Your task to perform on an android device: change the clock style Image 0: 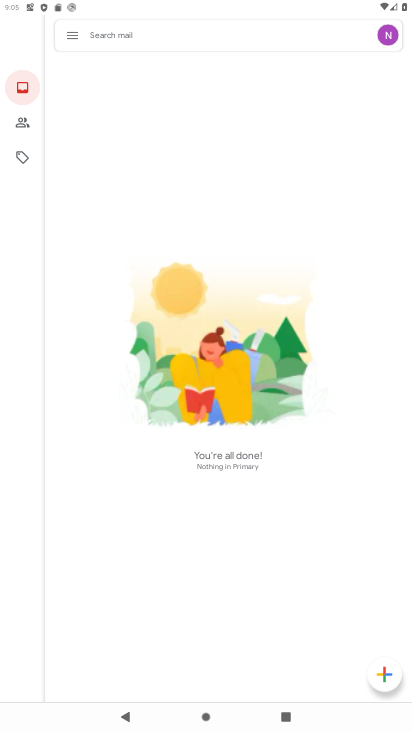
Step 0: press home button
Your task to perform on an android device: change the clock style Image 1: 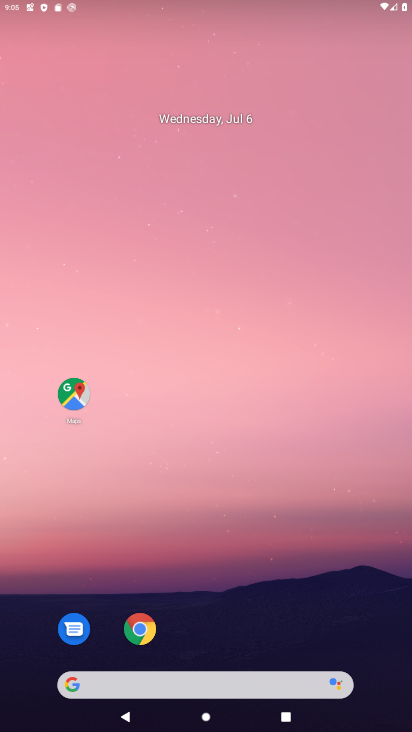
Step 1: drag from (224, 663) to (253, 92)
Your task to perform on an android device: change the clock style Image 2: 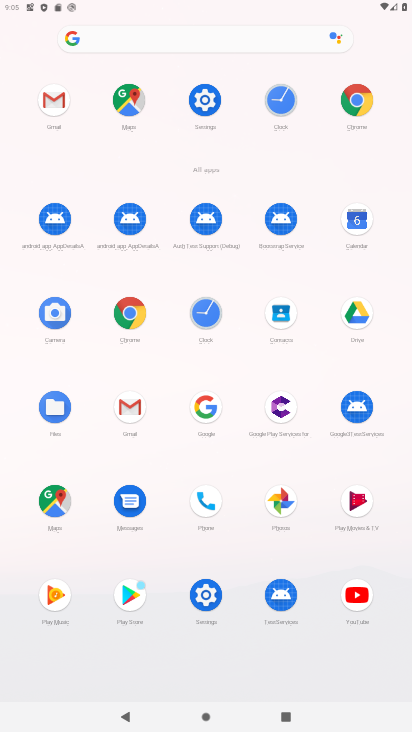
Step 2: click (214, 320)
Your task to perform on an android device: change the clock style Image 3: 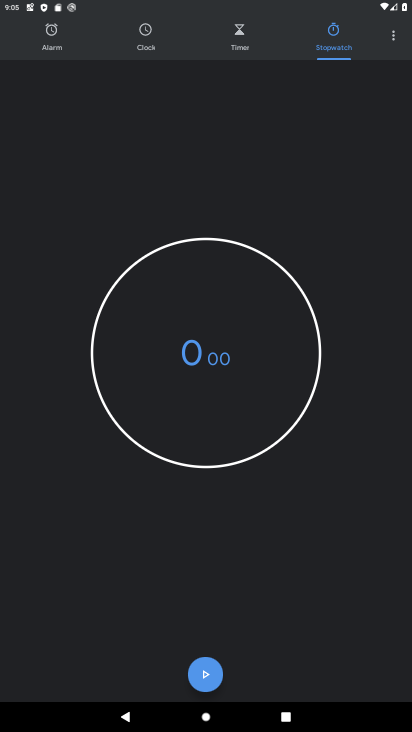
Step 3: click (389, 43)
Your task to perform on an android device: change the clock style Image 4: 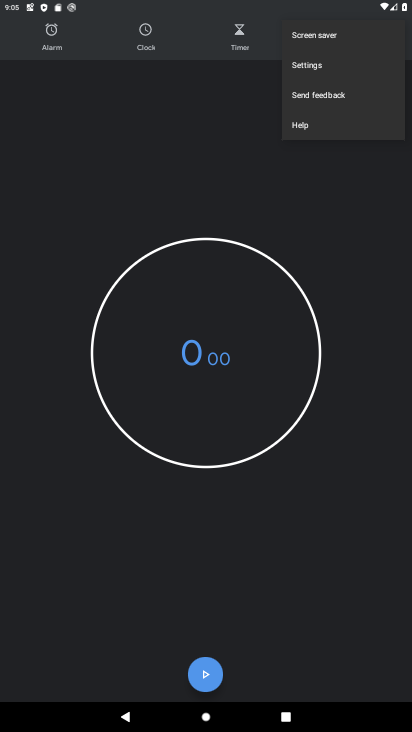
Step 4: click (328, 72)
Your task to perform on an android device: change the clock style Image 5: 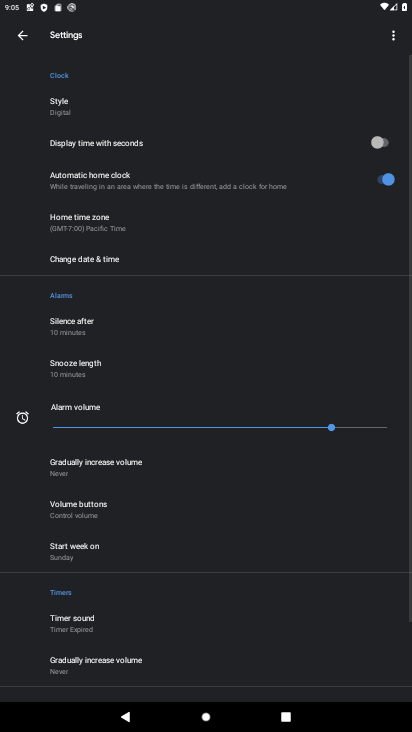
Step 5: drag from (213, 631) to (230, 416)
Your task to perform on an android device: change the clock style Image 6: 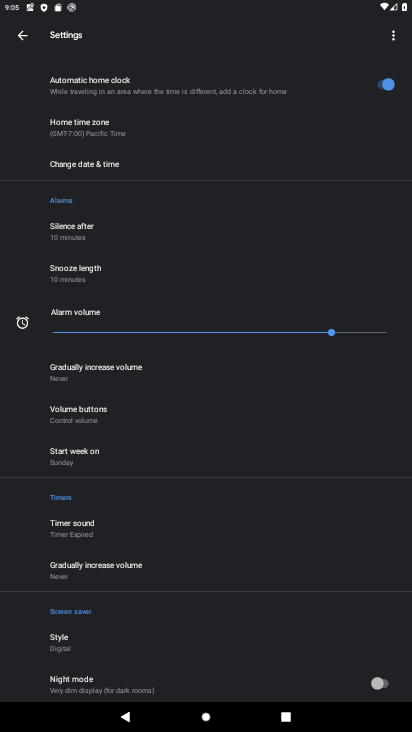
Step 6: click (104, 644)
Your task to perform on an android device: change the clock style Image 7: 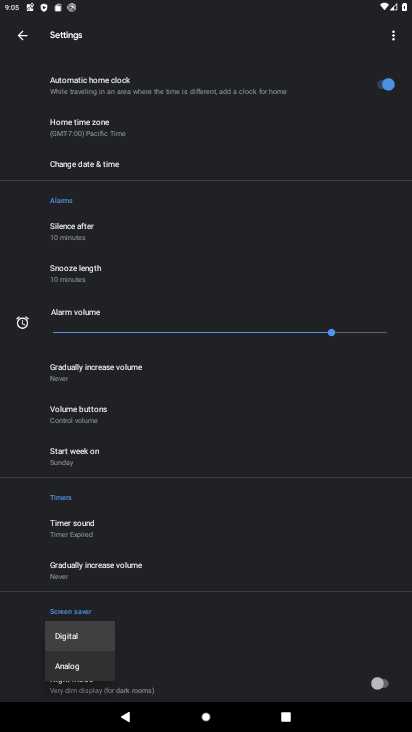
Step 7: click (97, 660)
Your task to perform on an android device: change the clock style Image 8: 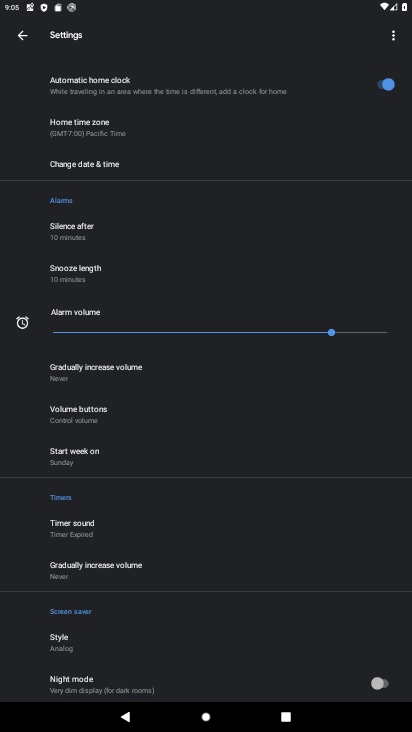
Step 8: task complete